Your task to perform on an android device: What's the weather going to be this weekend? Image 0: 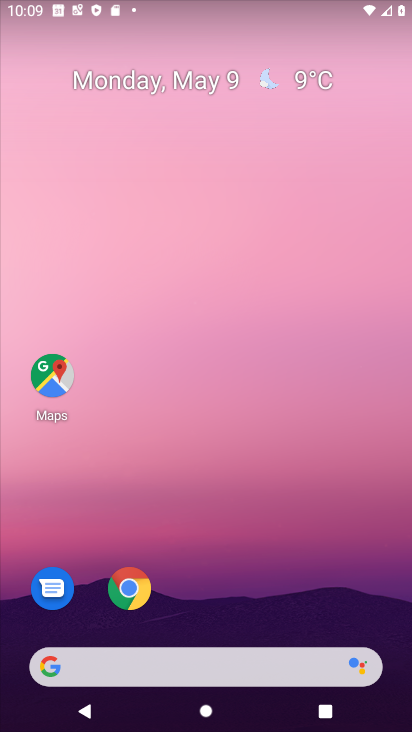
Step 0: drag from (235, 668) to (385, 75)
Your task to perform on an android device: What's the weather going to be this weekend? Image 1: 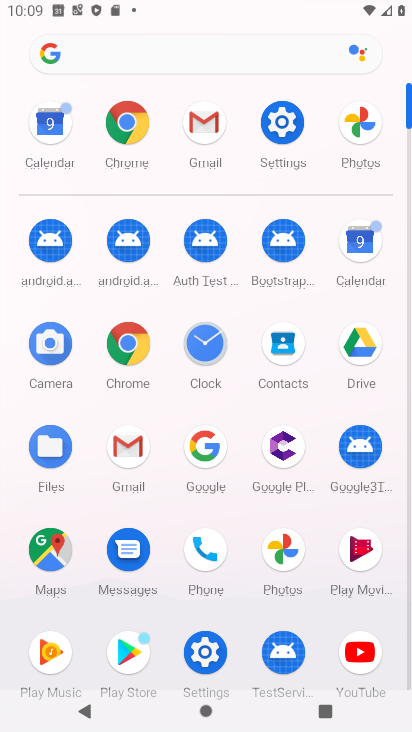
Step 1: click (210, 453)
Your task to perform on an android device: What's the weather going to be this weekend? Image 2: 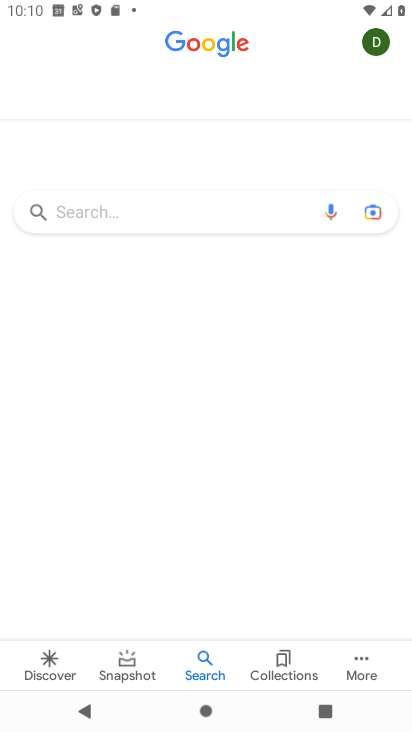
Step 2: click (146, 211)
Your task to perform on an android device: What's the weather going to be this weekend? Image 3: 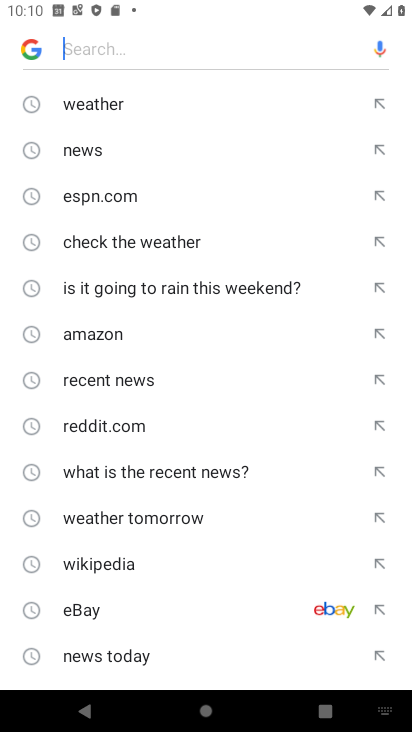
Step 3: click (114, 104)
Your task to perform on an android device: What's the weather going to be this weekend? Image 4: 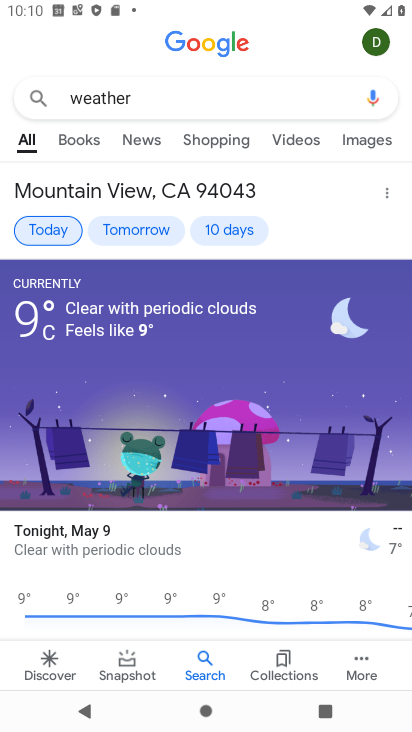
Step 4: click (227, 232)
Your task to perform on an android device: What's the weather going to be this weekend? Image 5: 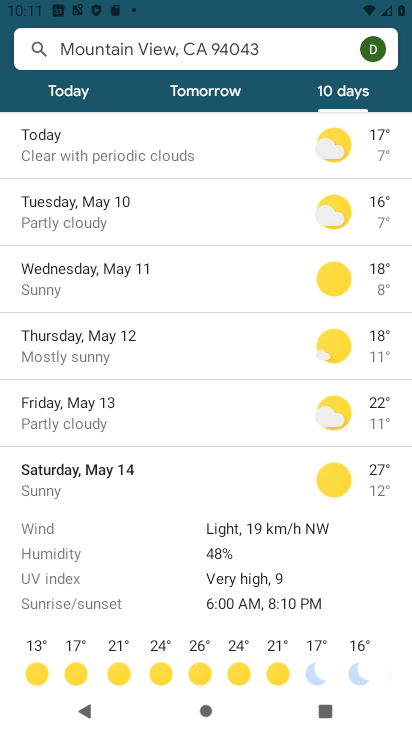
Step 5: task complete